Your task to perform on an android device: stop showing notifications on the lock screen Image 0: 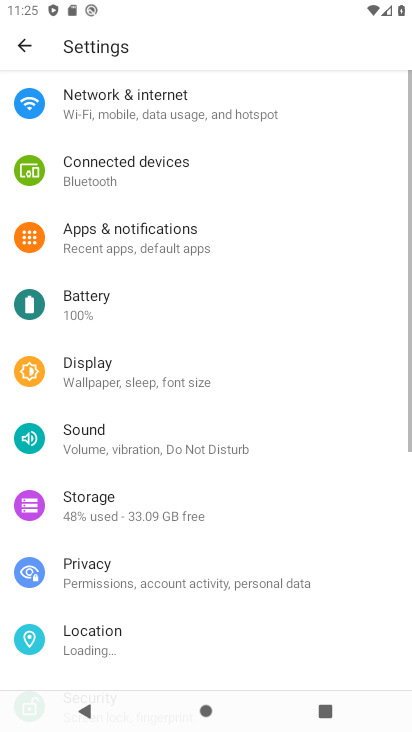
Step 0: press home button
Your task to perform on an android device: stop showing notifications on the lock screen Image 1: 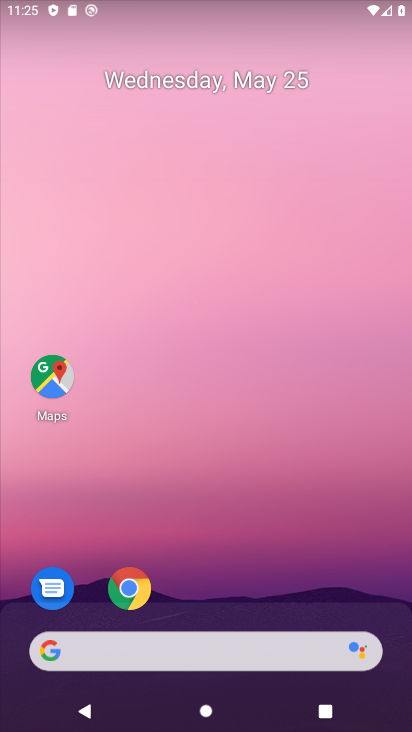
Step 1: drag from (220, 533) to (163, 131)
Your task to perform on an android device: stop showing notifications on the lock screen Image 2: 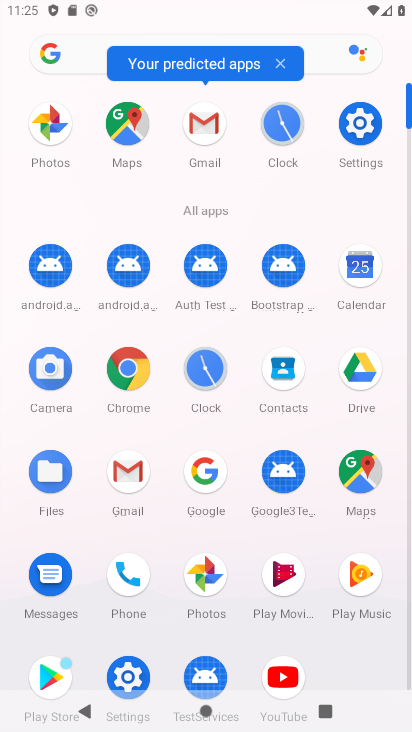
Step 2: click (360, 122)
Your task to perform on an android device: stop showing notifications on the lock screen Image 3: 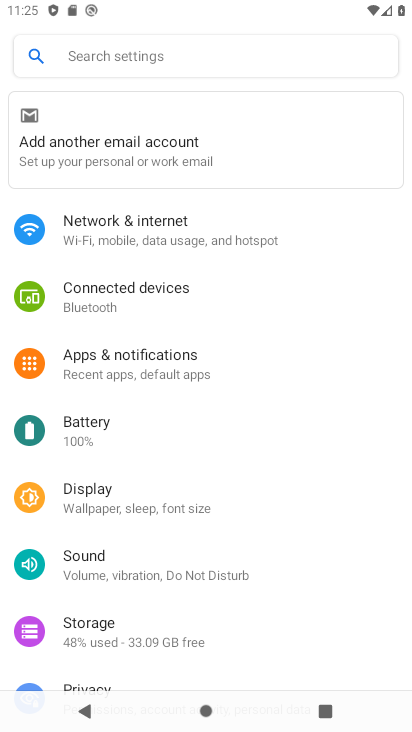
Step 3: click (125, 351)
Your task to perform on an android device: stop showing notifications on the lock screen Image 4: 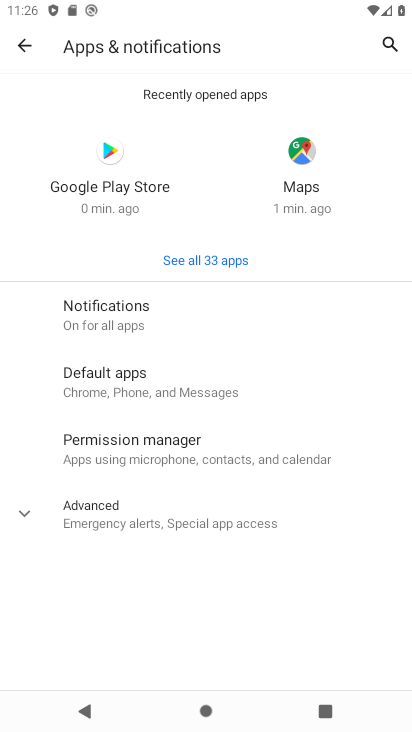
Step 4: click (117, 308)
Your task to perform on an android device: stop showing notifications on the lock screen Image 5: 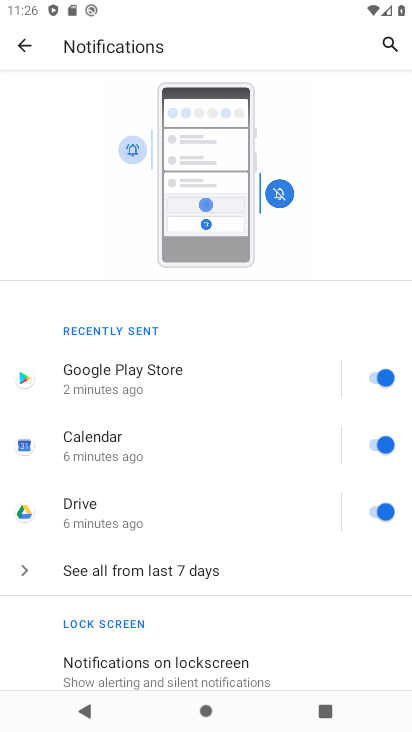
Step 5: click (182, 668)
Your task to perform on an android device: stop showing notifications on the lock screen Image 6: 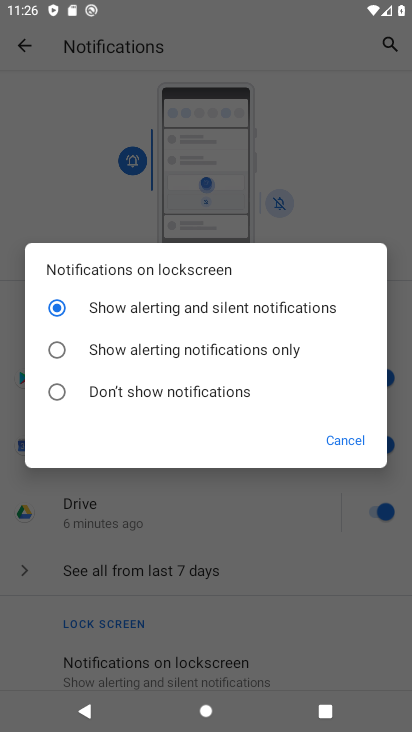
Step 6: click (55, 388)
Your task to perform on an android device: stop showing notifications on the lock screen Image 7: 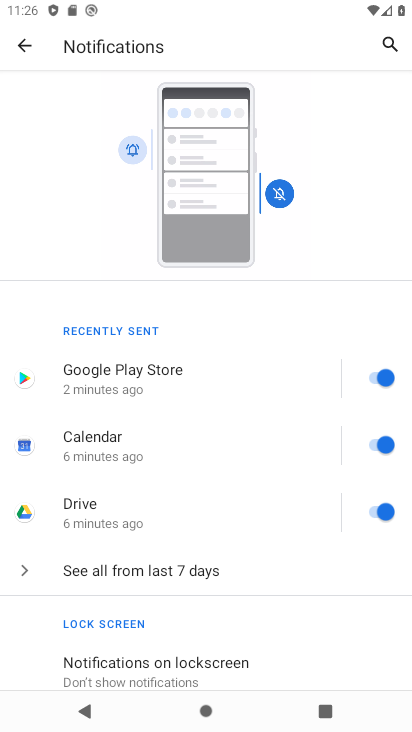
Step 7: task complete